Your task to perform on an android device: add a contact Image 0: 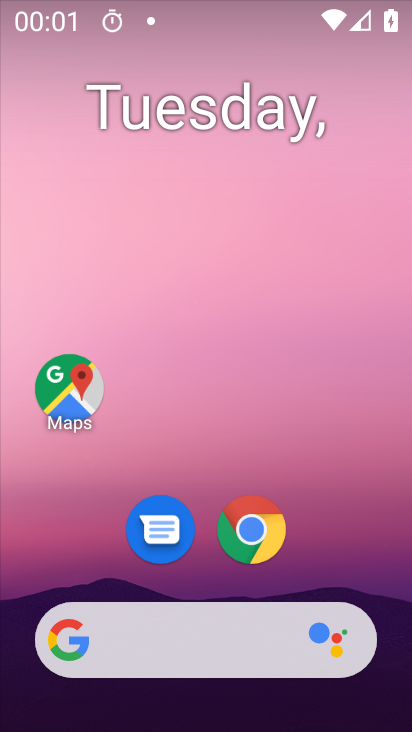
Step 0: drag from (379, 576) to (354, 140)
Your task to perform on an android device: add a contact Image 1: 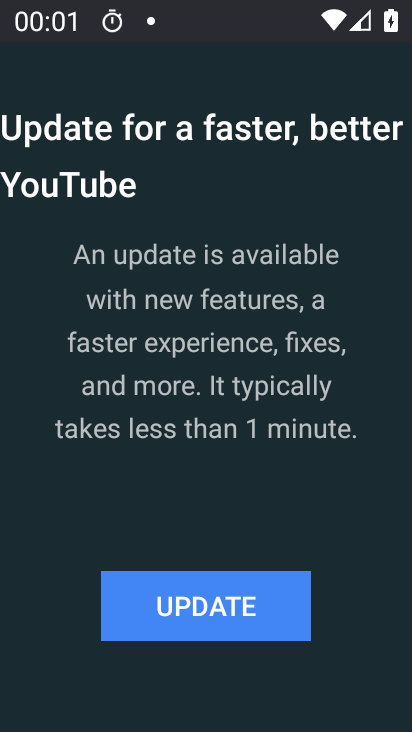
Step 1: press home button
Your task to perform on an android device: add a contact Image 2: 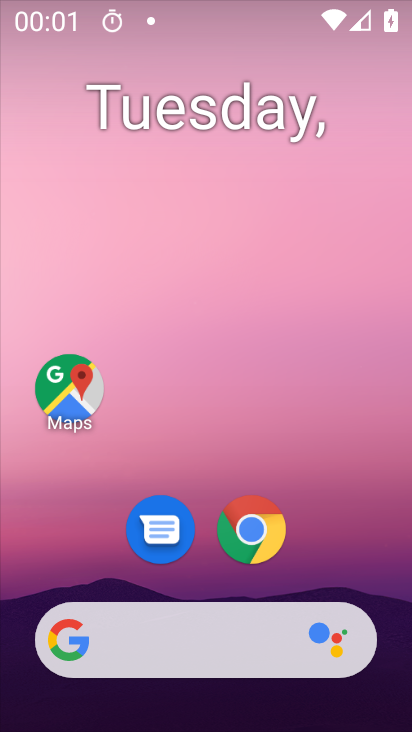
Step 2: drag from (372, 526) to (362, 113)
Your task to perform on an android device: add a contact Image 3: 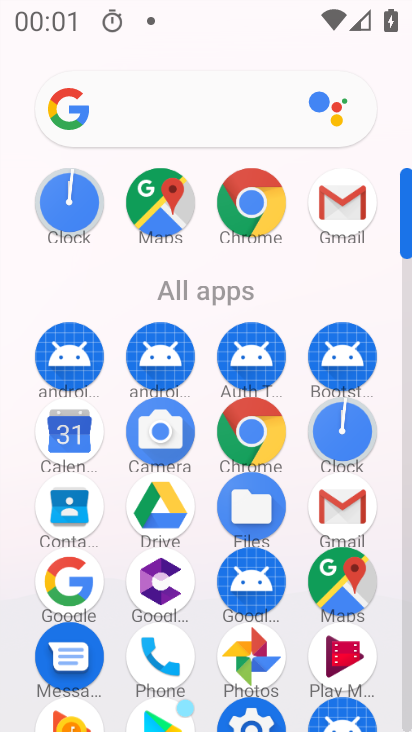
Step 3: drag from (409, 248) to (405, 649)
Your task to perform on an android device: add a contact Image 4: 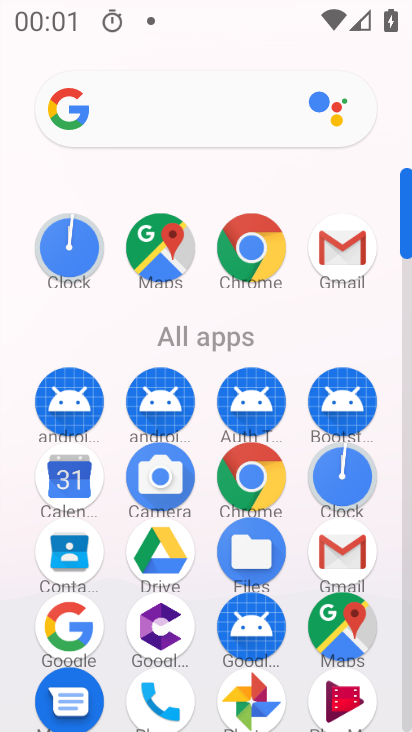
Step 4: click (405, 649)
Your task to perform on an android device: add a contact Image 5: 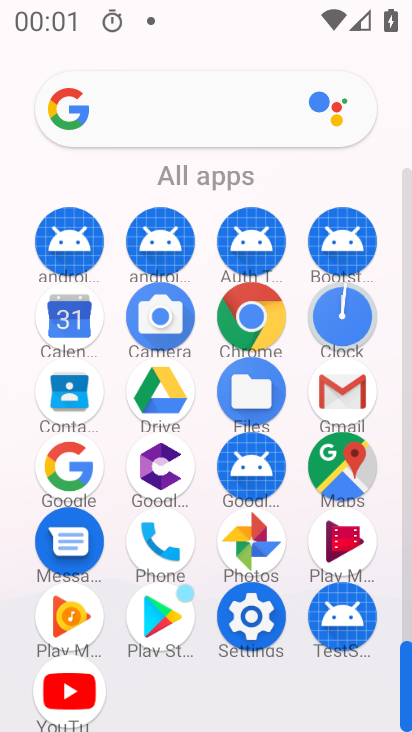
Step 5: click (405, 649)
Your task to perform on an android device: add a contact Image 6: 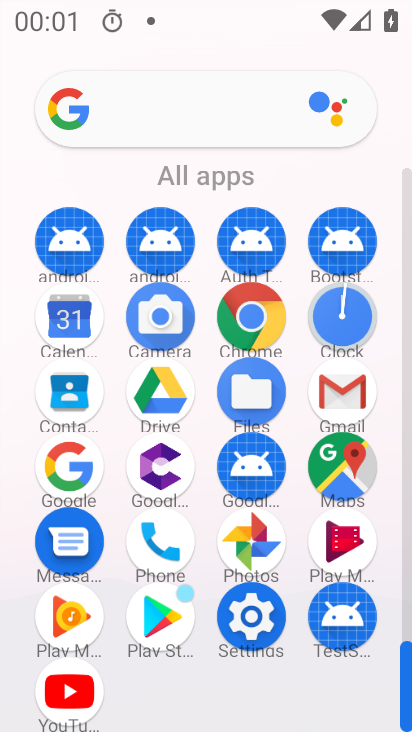
Step 6: drag from (252, 646) to (264, 401)
Your task to perform on an android device: add a contact Image 7: 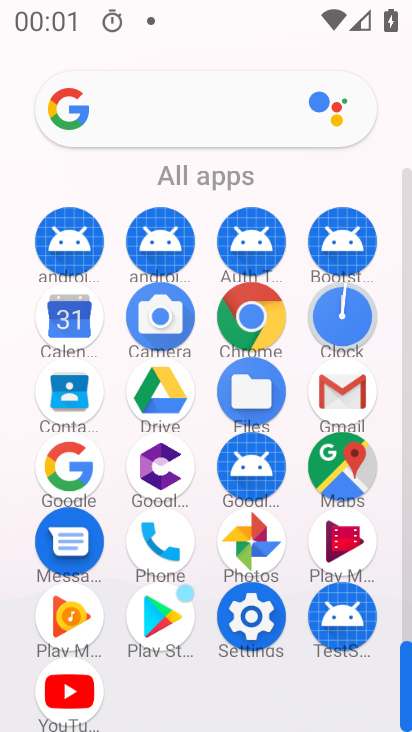
Step 7: click (41, 407)
Your task to perform on an android device: add a contact Image 8: 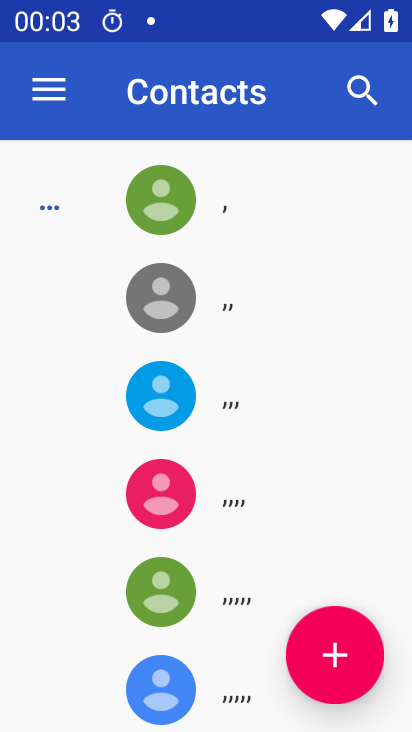
Step 8: click (321, 684)
Your task to perform on an android device: add a contact Image 9: 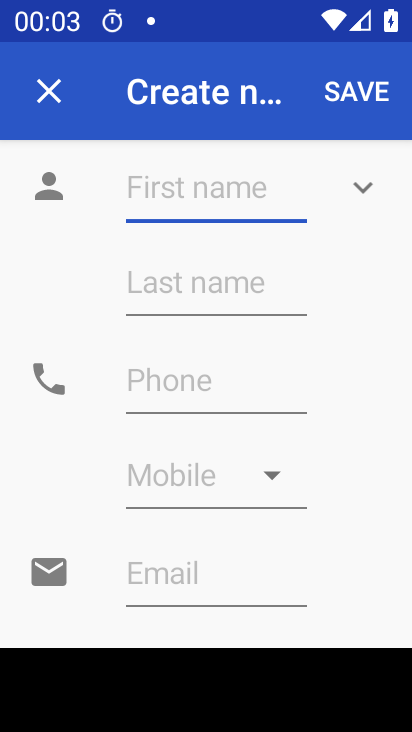
Step 9: type "bbnm"
Your task to perform on an android device: add a contact Image 10: 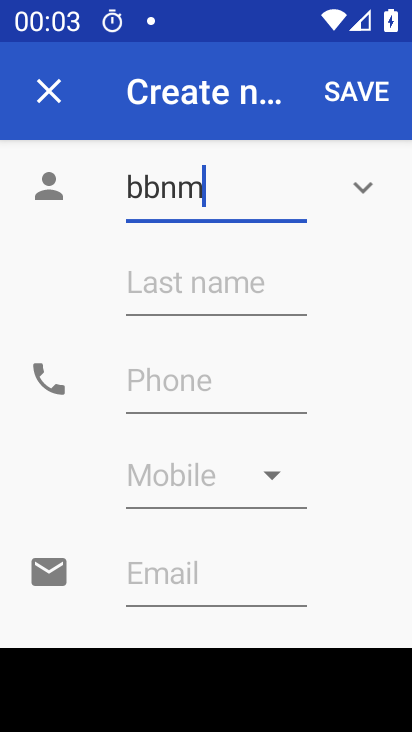
Step 10: click (289, 386)
Your task to perform on an android device: add a contact Image 11: 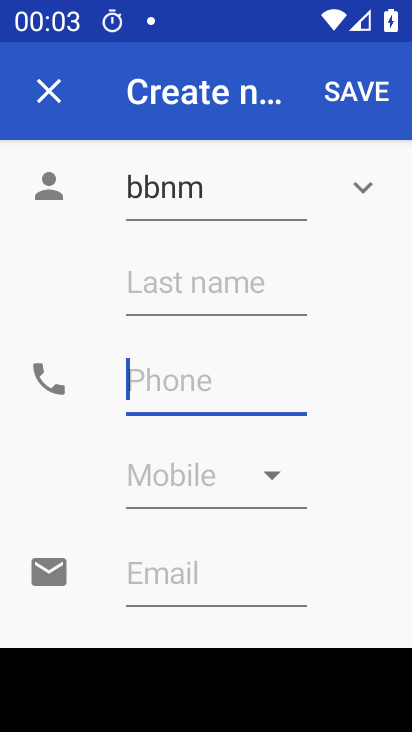
Step 11: type "777"
Your task to perform on an android device: add a contact Image 12: 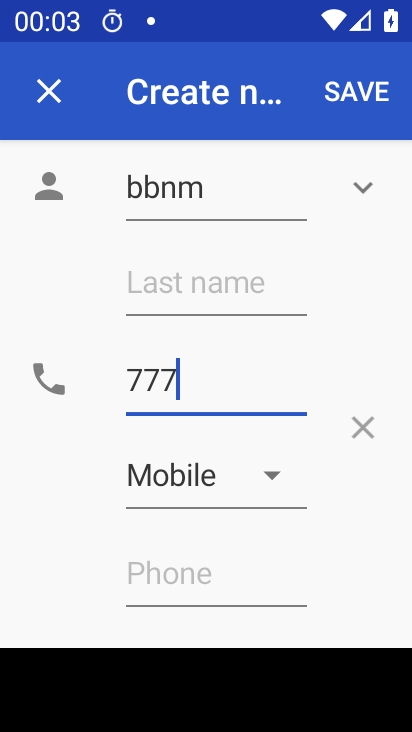
Step 12: click (329, 91)
Your task to perform on an android device: add a contact Image 13: 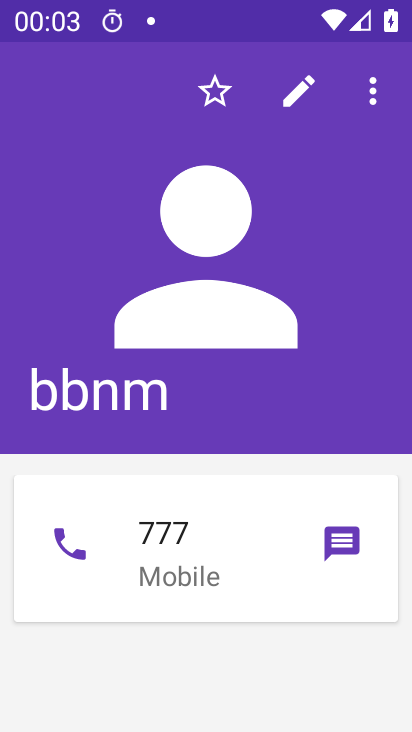
Step 13: task complete